Your task to perform on an android device: Open calendar and show me the first week of next month Image 0: 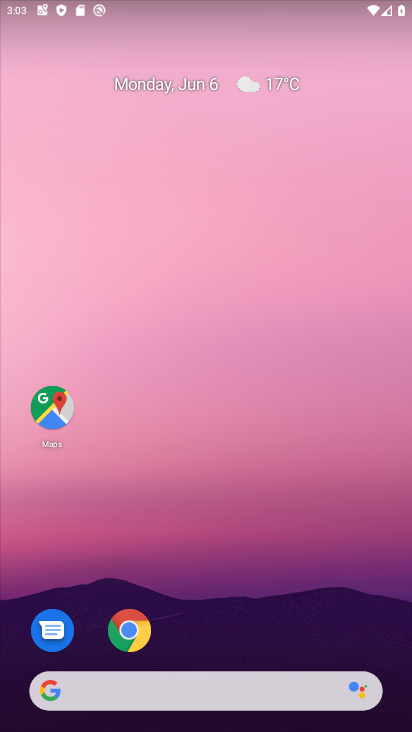
Step 0: drag from (227, 627) to (288, 107)
Your task to perform on an android device: Open calendar and show me the first week of next month Image 1: 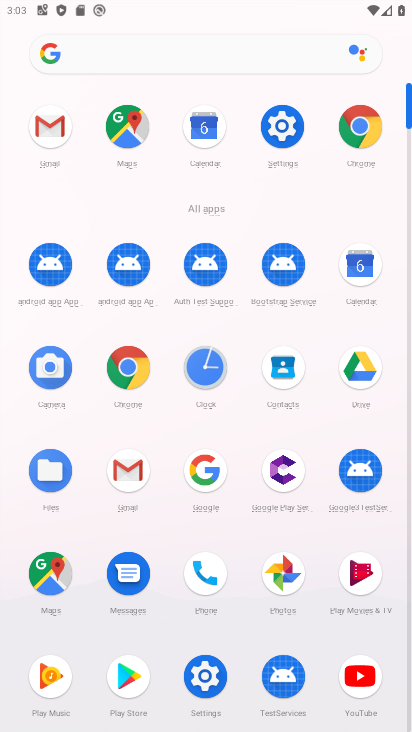
Step 1: click (366, 266)
Your task to perform on an android device: Open calendar and show me the first week of next month Image 2: 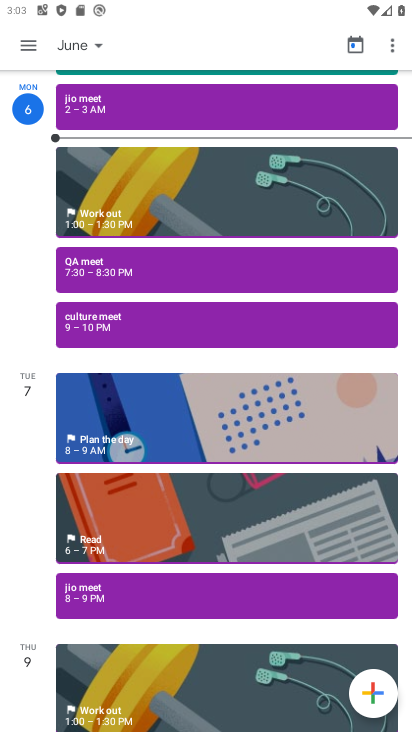
Step 2: click (79, 39)
Your task to perform on an android device: Open calendar and show me the first week of next month Image 3: 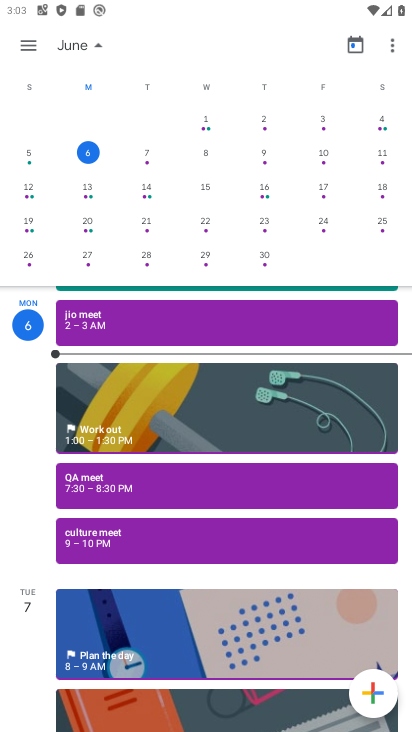
Step 3: drag from (350, 174) to (94, 172)
Your task to perform on an android device: Open calendar and show me the first week of next month Image 4: 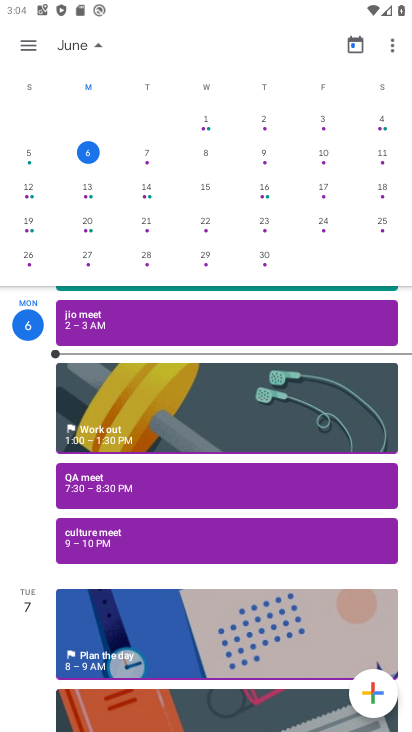
Step 4: drag from (341, 198) to (4, 214)
Your task to perform on an android device: Open calendar and show me the first week of next month Image 5: 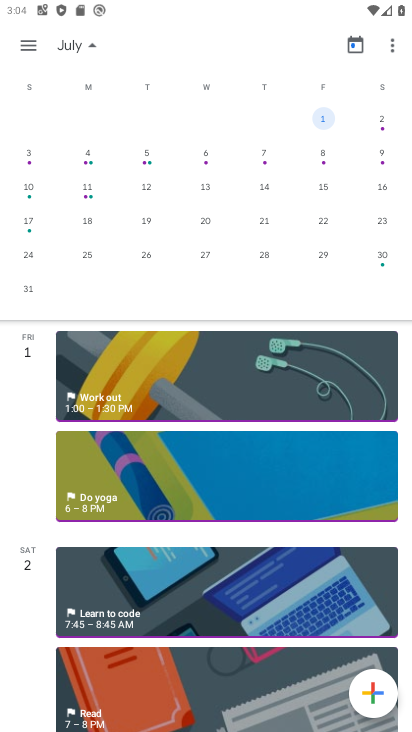
Step 5: click (88, 151)
Your task to perform on an android device: Open calendar and show me the first week of next month Image 6: 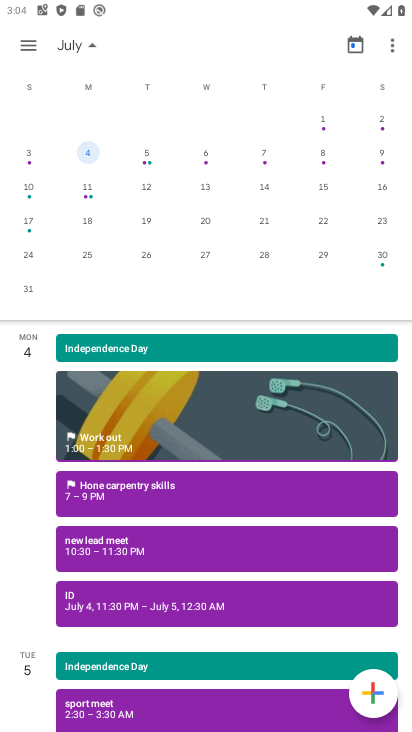
Step 6: task complete